Your task to perform on an android device: allow cookies in the chrome app Image 0: 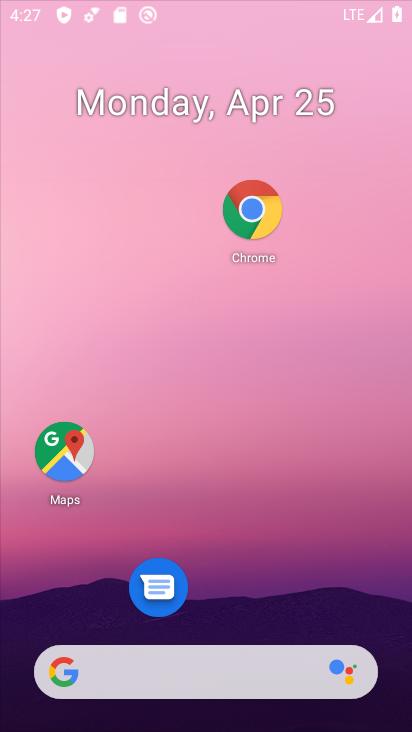
Step 0: drag from (381, 573) to (403, 33)
Your task to perform on an android device: allow cookies in the chrome app Image 1: 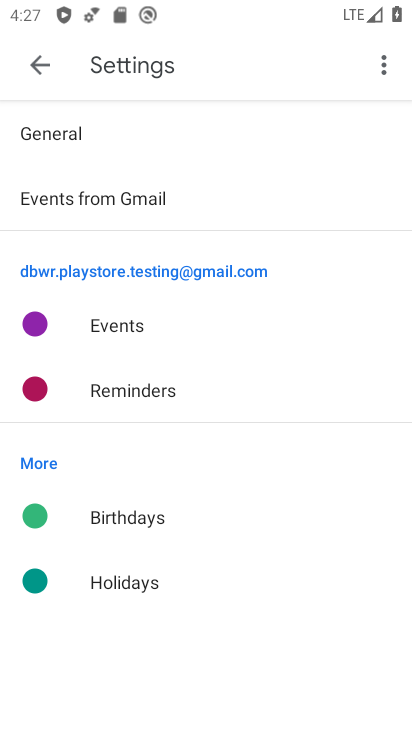
Step 1: press home button
Your task to perform on an android device: allow cookies in the chrome app Image 2: 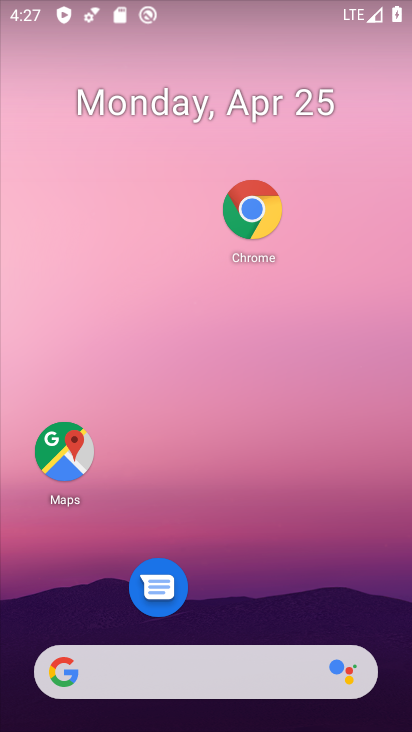
Step 2: drag from (303, 582) to (307, 242)
Your task to perform on an android device: allow cookies in the chrome app Image 3: 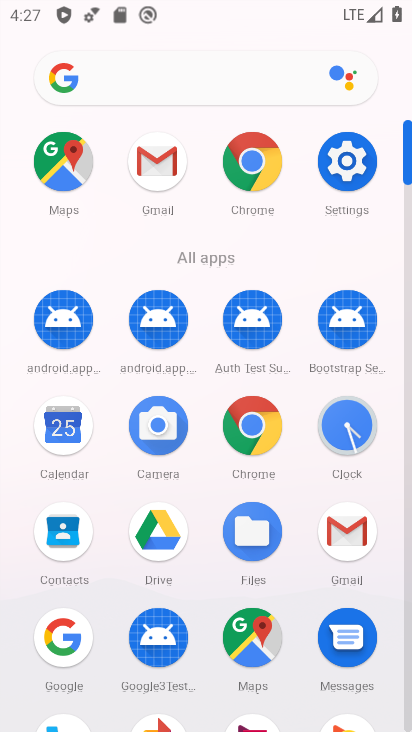
Step 3: click (248, 183)
Your task to perform on an android device: allow cookies in the chrome app Image 4: 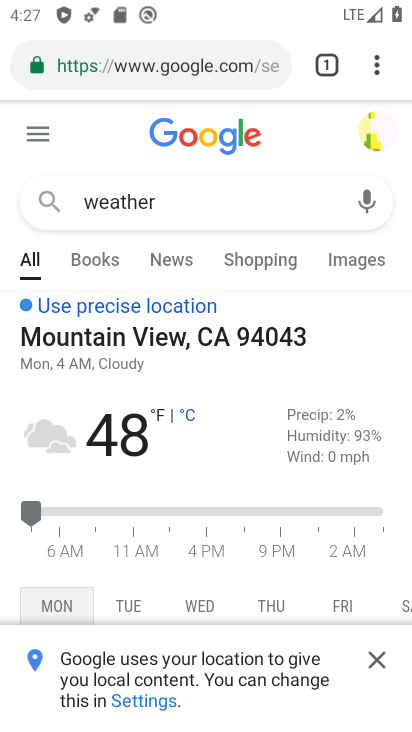
Step 4: drag from (373, 77) to (190, 642)
Your task to perform on an android device: allow cookies in the chrome app Image 5: 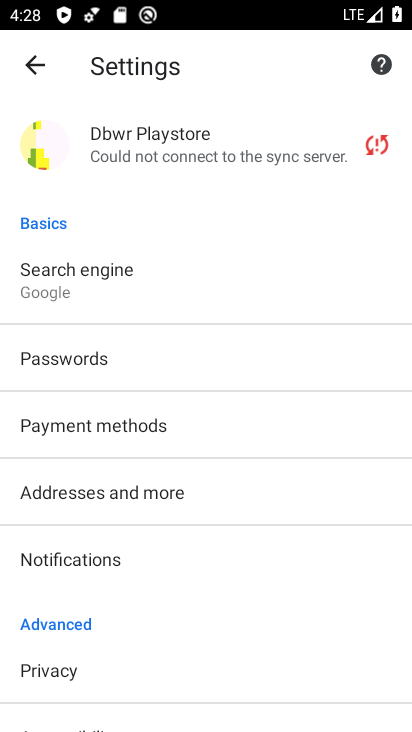
Step 5: drag from (199, 649) to (247, 193)
Your task to perform on an android device: allow cookies in the chrome app Image 6: 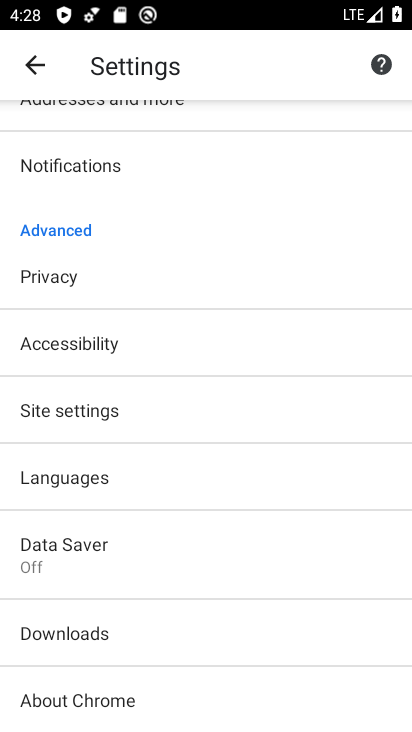
Step 6: click (230, 425)
Your task to perform on an android device: allow cookies in the chrome app Image 7: 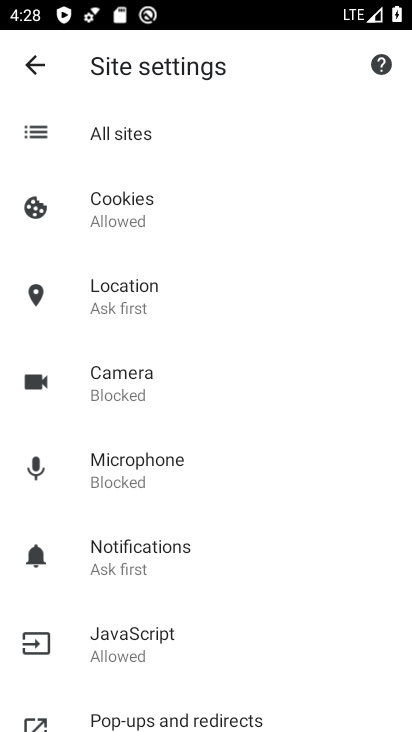
Step 7: click (236, 218)
Your task to perform on an android device: allow cookies in the chrome app Image 8: 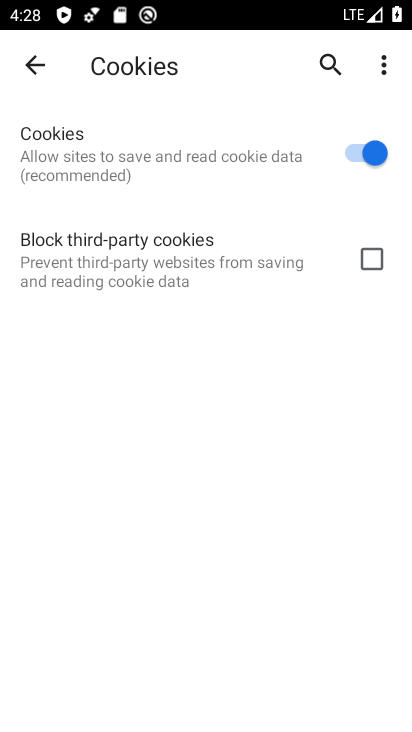
Step 8: task complete